Your task to perform on an android device: Go to Amazon Image 0: 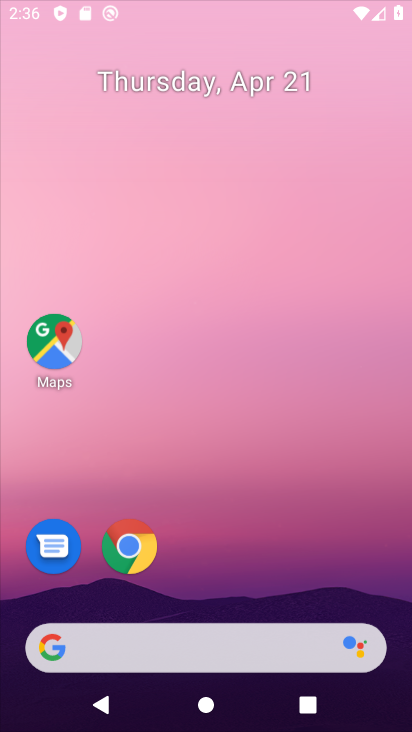
Step 0: click (168, 26)
Your task to perform on an android device: Go to Amazon Image 1: 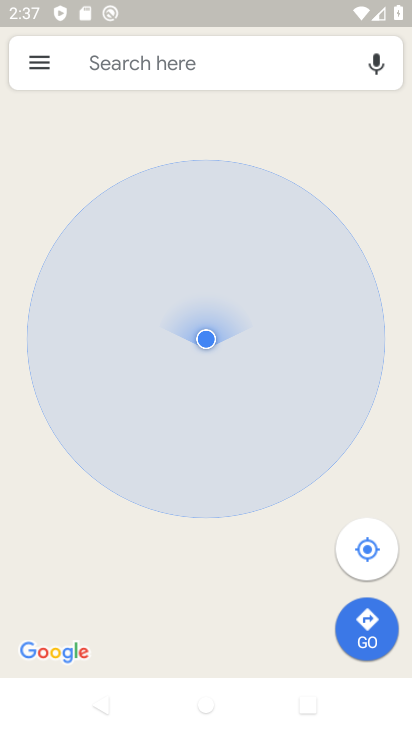
Step 1: press home button
Your task to perform on an android device: Go to Amazon Image 2: 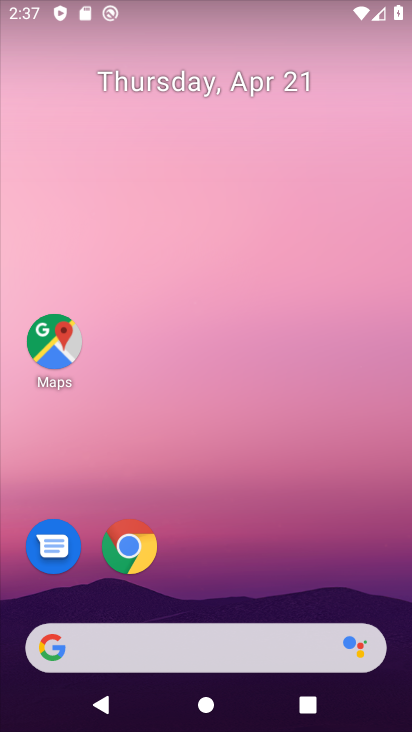
Step 2: drag from (258, 548) to (235, 210)
Your task to perform on an android device: Go to Amazon Image 3: 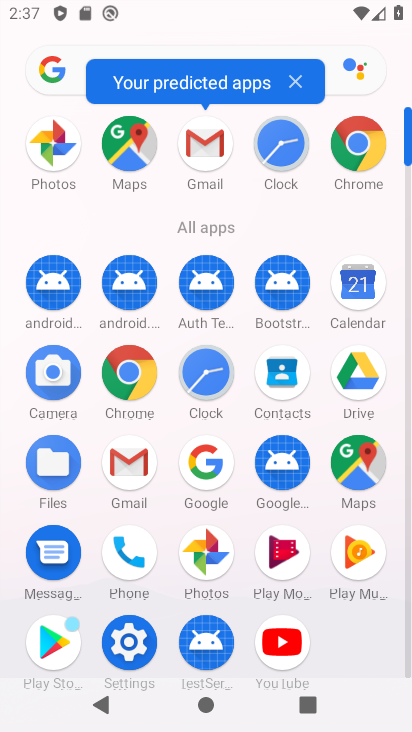
Step 3: click (345, 156)
Your task to perform on an android device: Go to Amazon Image 4: 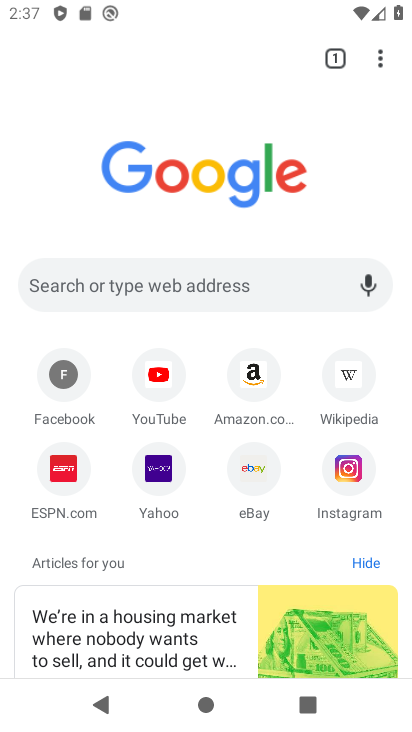
Step 4: click (247, 373)
Your task to perform on an android device: Go to Amazon Image 5: 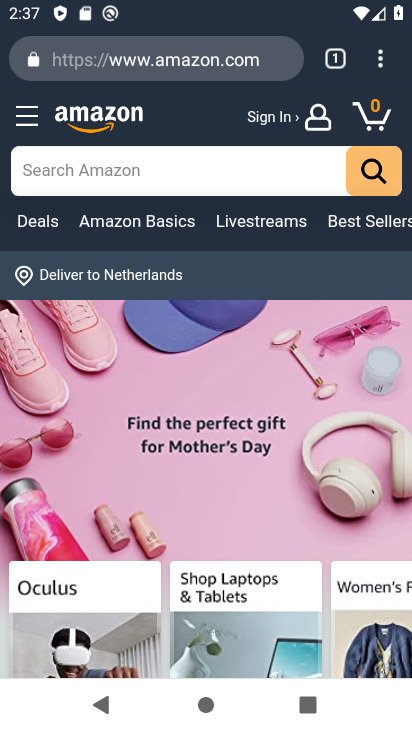
Step 5: task complete